Your task to perform on an android device: open device folders in google photos Image 0: 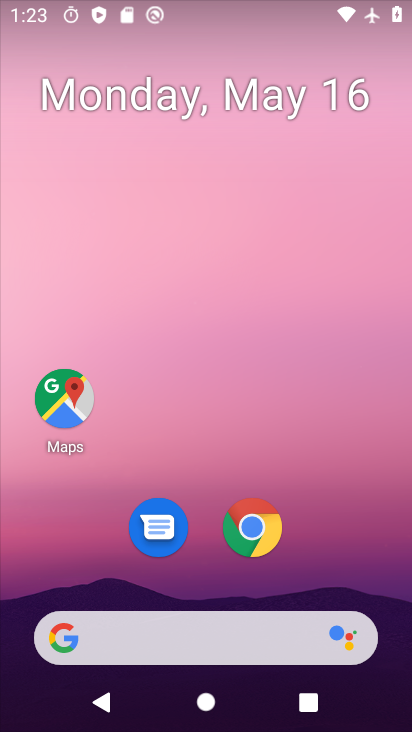
Step 0: press home button
Your task to perform on an android device: open device folders in google photos Image 1: 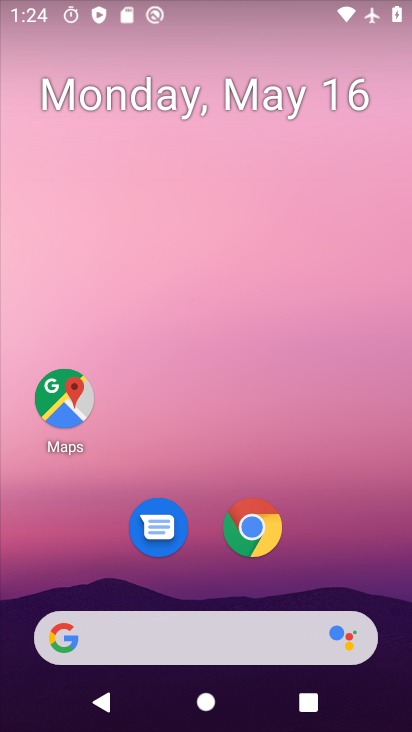
Step 1: drag from (144, 644) to (285, 185)
Your task to perform on an android device: open device folders in google photos Image 2: 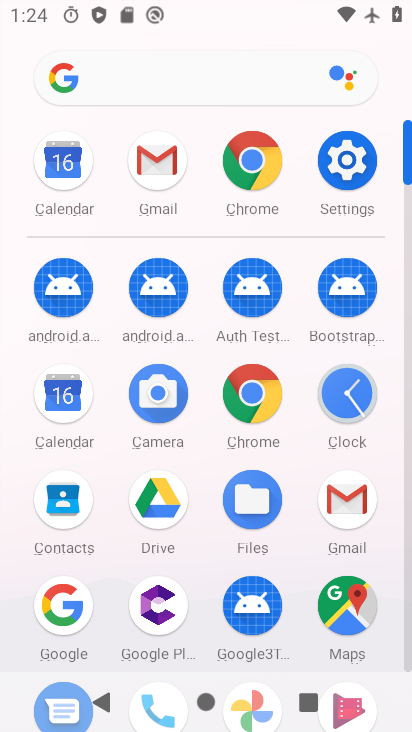
Step 2: drag from (220, 561) to (350, 176)
Your task to perform on an android device: open device folders in google photos Image 3: 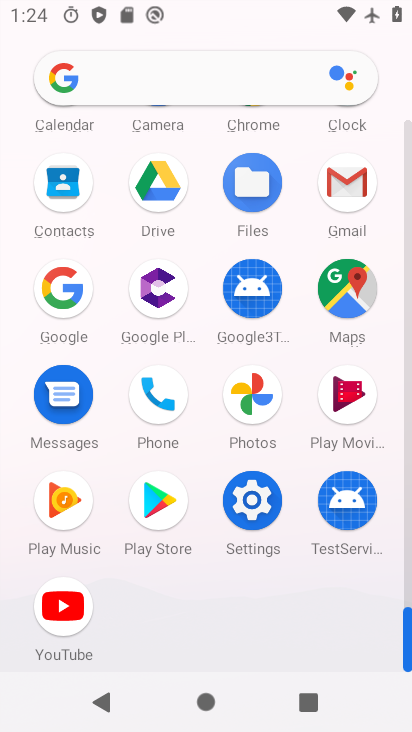
Step 3: click (255, 392)
Your task to perform on an android device: open device folders in google photos Image 4: 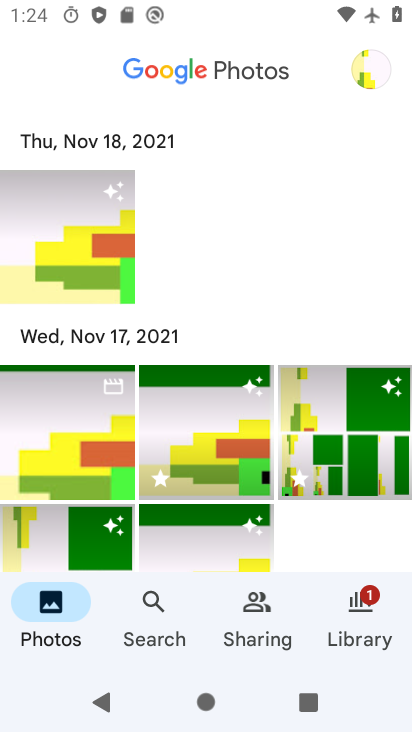
Step 4: click (359, 620)
Your task to perform on an android device: open device folders in google photos Image 5: 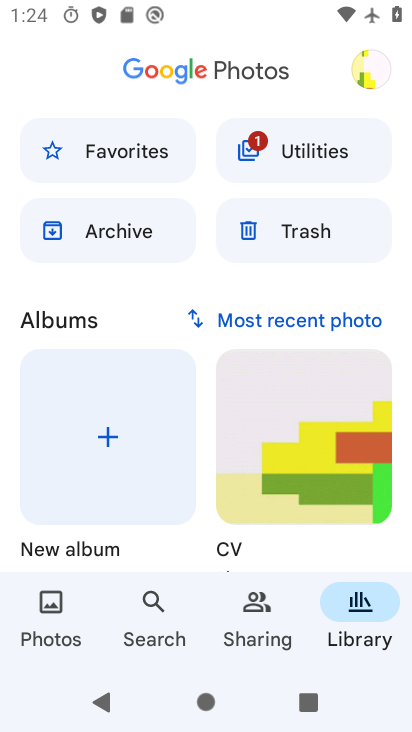
Step 5: task complete